Your task to perform on an android device: change the clock display to digital Image 0: 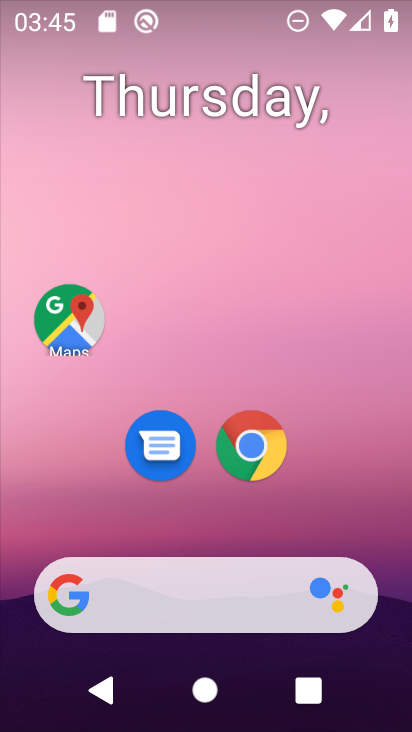
Step 0: drag from (362, 541) to (368, 7)
Your task to perform on an android device: change the clock display to digital Image 1: 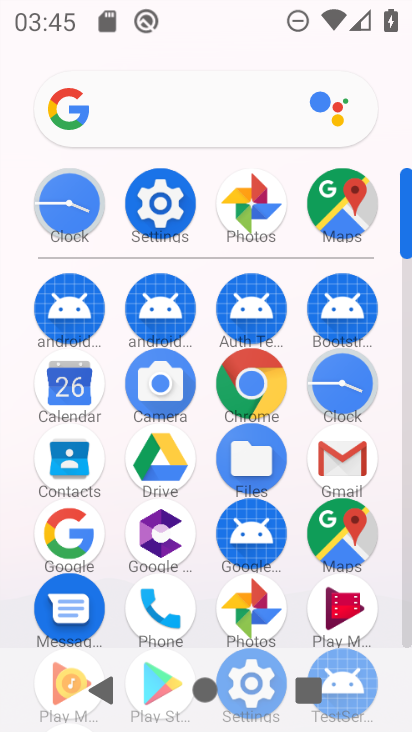
Step 1: click (70, 207)
Your task to perform on an android device: change the clock display to digital Image 2: 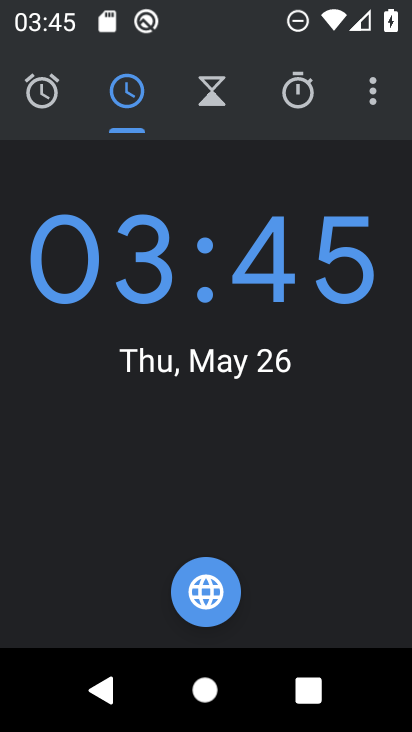
Step 2: click (374, 98)
Your task to perform on an android device: change the clock display to digital Image 3: 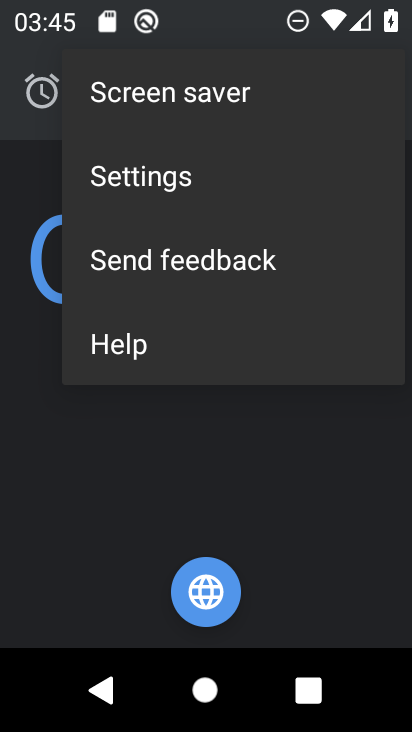
Step 3: click (134, 176)
Your task to perform on an android device: change the clock display to digital Image 4: 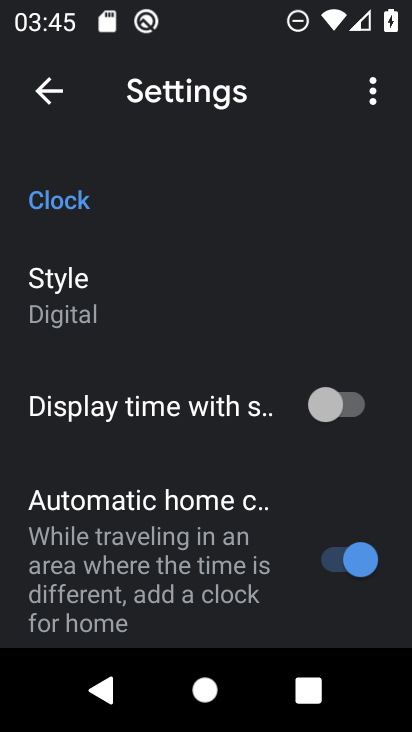
Step 4: task complete